Your task to perform on an android device: Set the phone to "Do not disturb". Image 0: 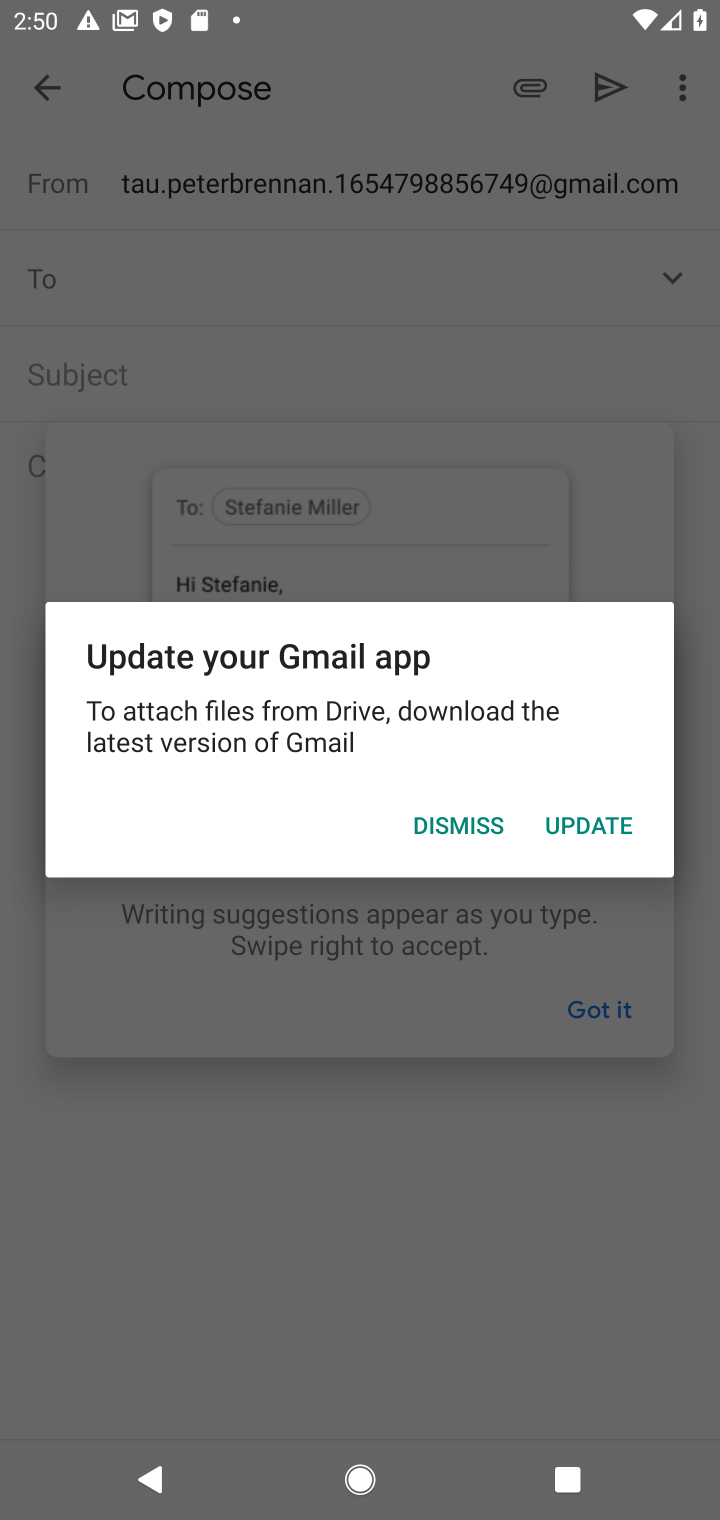
Step 0: press home button
Your task to perform on an android device: Set the phone to "Do not disturb". Image 1: 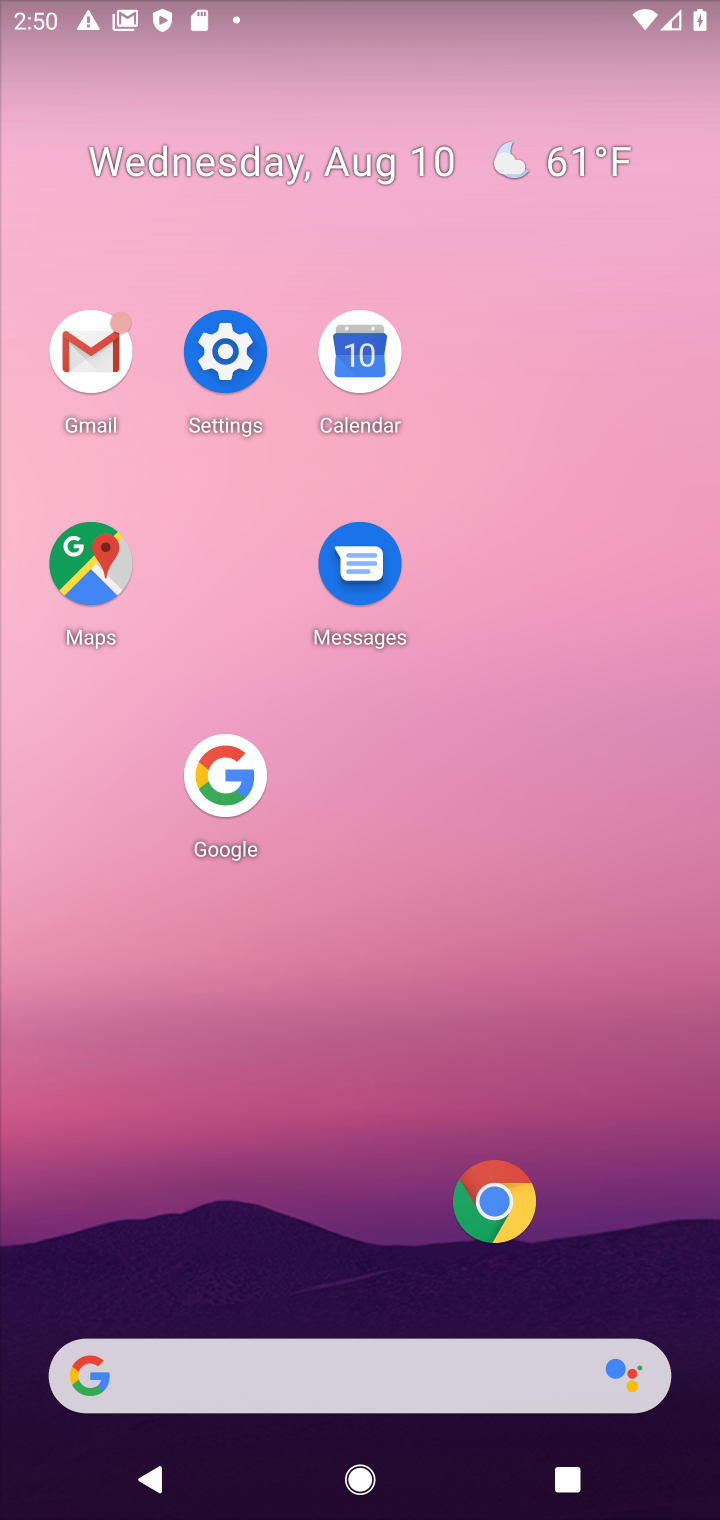
Step 1: click (228, 356)
Your task to perform on an android device: Set the phone to "Do not disturb". Image 2: 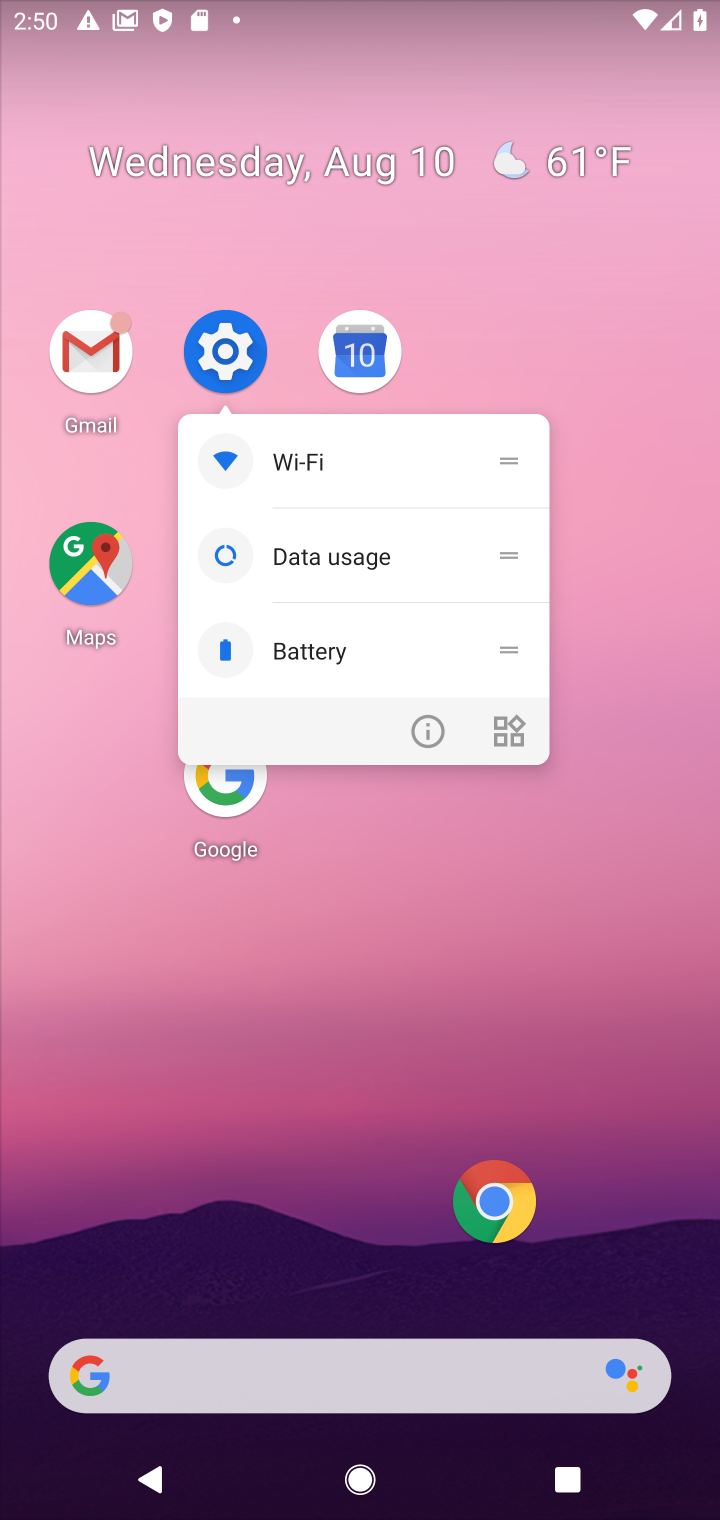
Step 2: click (234, 356)
Your task to perform on an android device: Set the phone to "Do not disturb". Image 3: 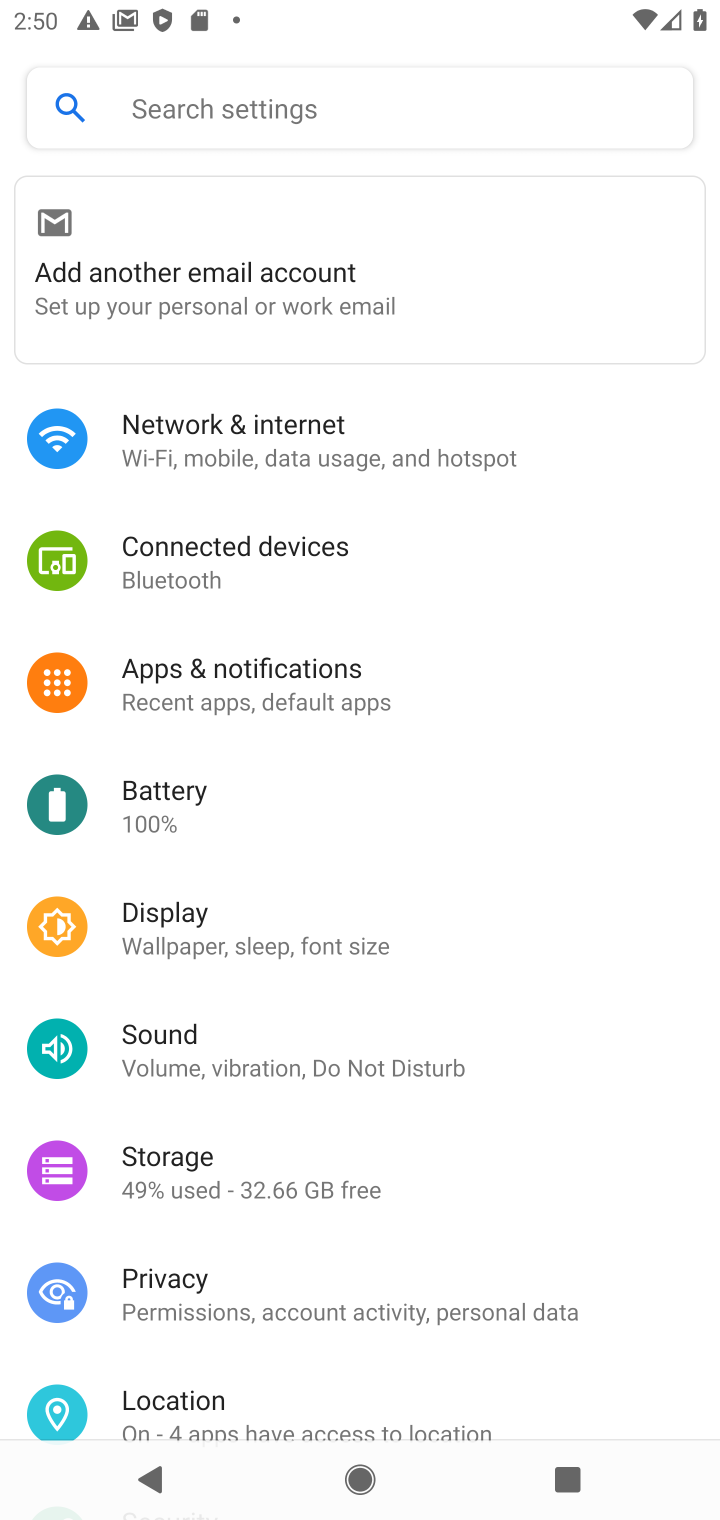
Step 3: click (434, 1031)
Your task to perform on an android device: Set the phone to "Do not disturb". Image 4: 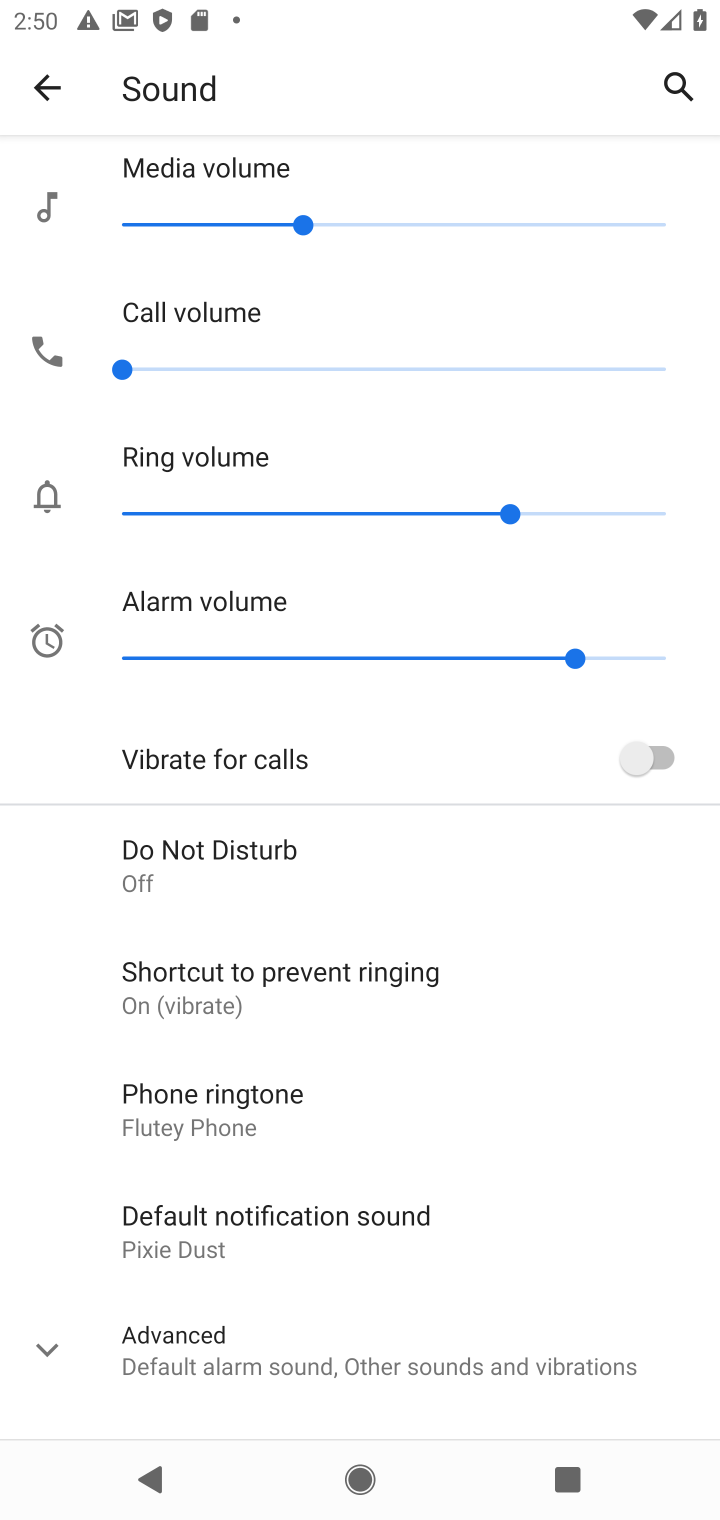
Step 4: click (321, 884)
Your task to perform on an android device: Set the phone to "Do not disturb". Image 5: 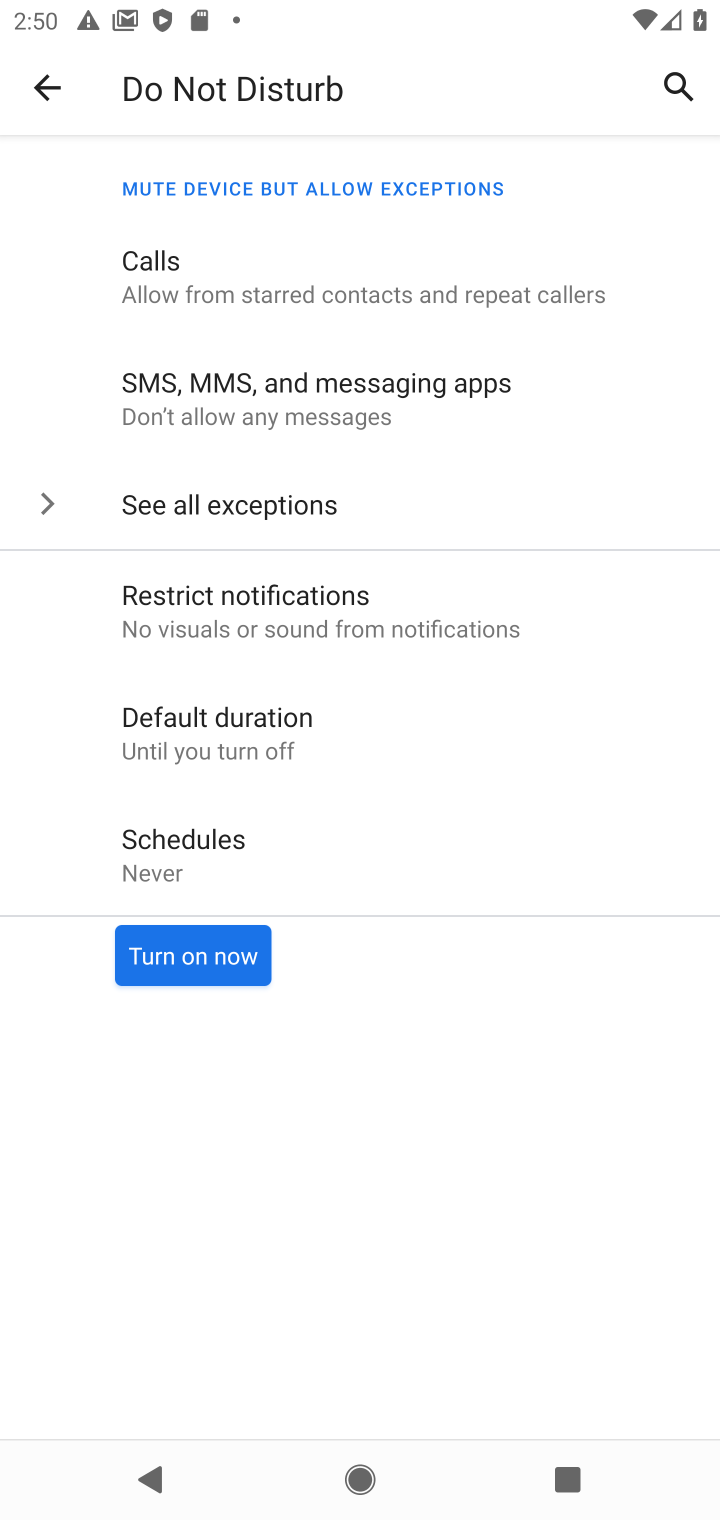
Step 5: click (224, 949)
Your task to perform on an android device: Set the phone to "Do not disturb". Image 6: 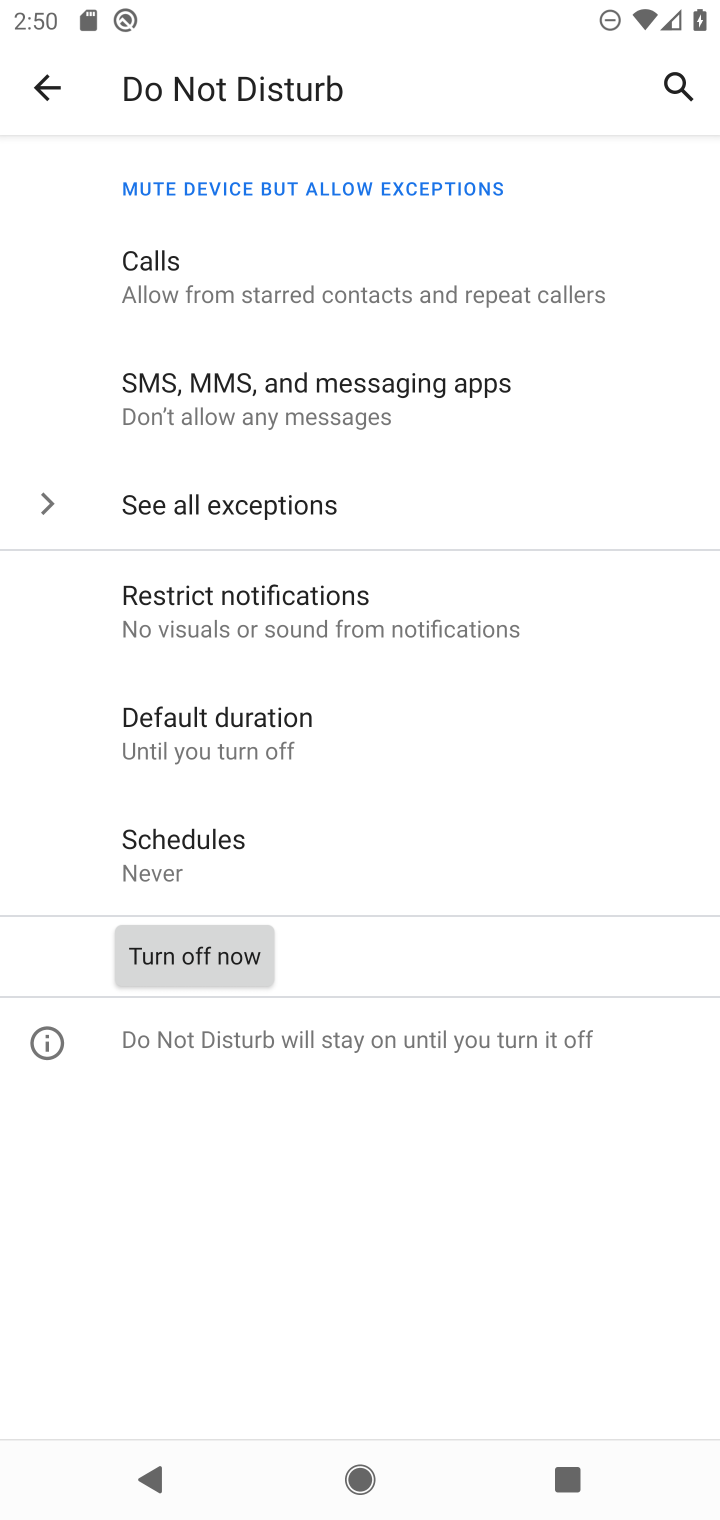
Step 6: task complete